Your task to perform on an android device: Search for sushi restaurants on Maps Image 0: 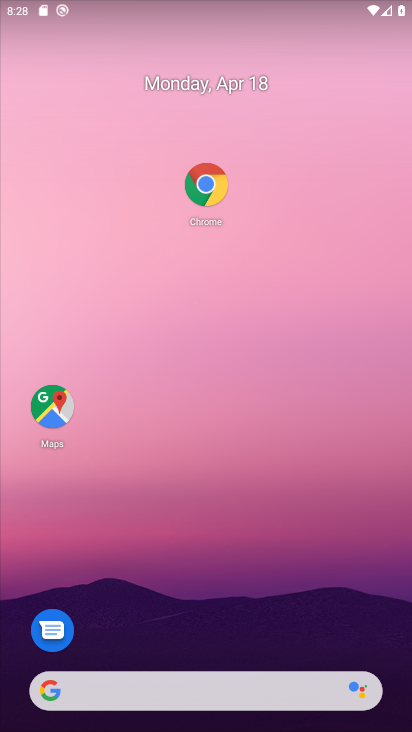
Step 0: click (69, 407)
Your task to perform on an android device: Search for sushi restaurants on Maps Image 1: 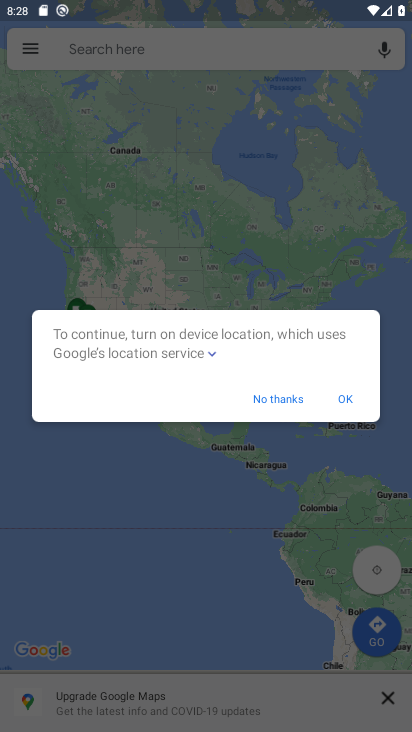
Step 1: click (140, 50)
Your task to perform on an android device: Search for sushi restaurants on Maps Image 2: 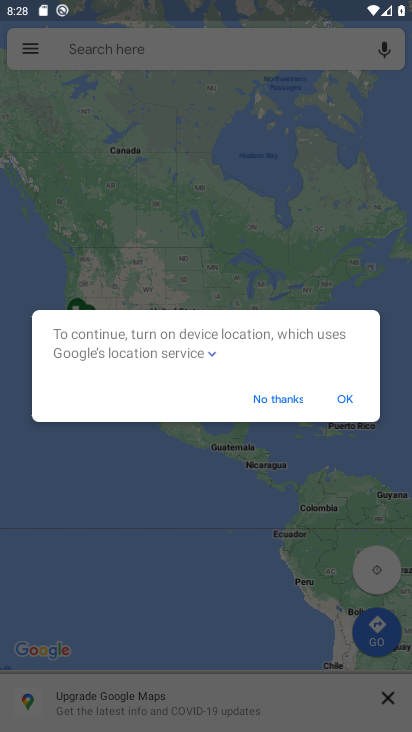
Step 2: click (340, 400)
Your task to perform on an android device: Search for sushi restaurants on Maps Image 3: 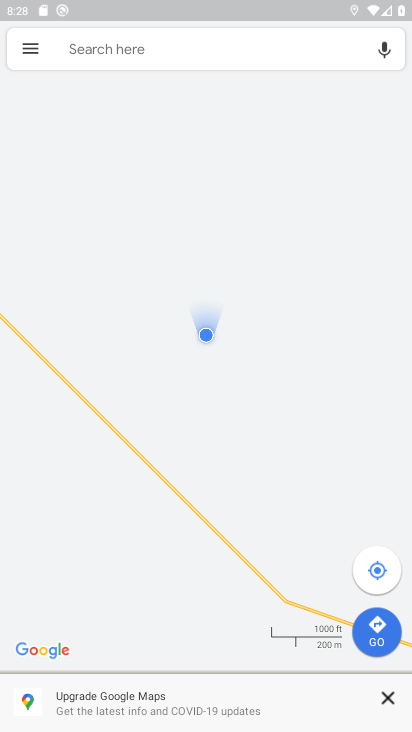
Step 3: click (122, 47)
Your task to perform on an android device: Search for sushi restaurants on Maps Image 4: 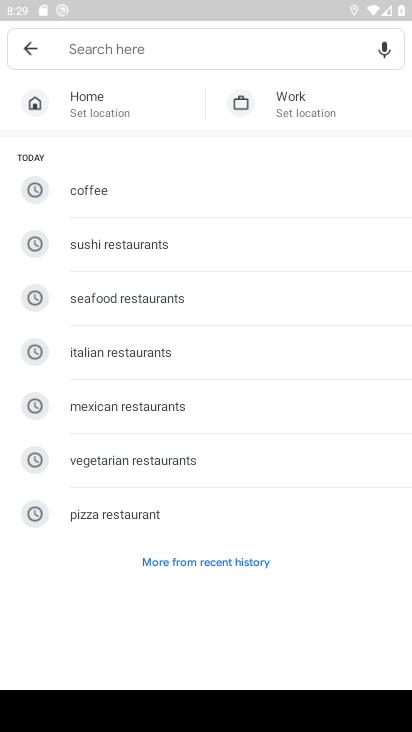
Step 4: type "sushi restaurants"
Your task to perform on an android device: Search for sushi restaurants on Maps Image 5: 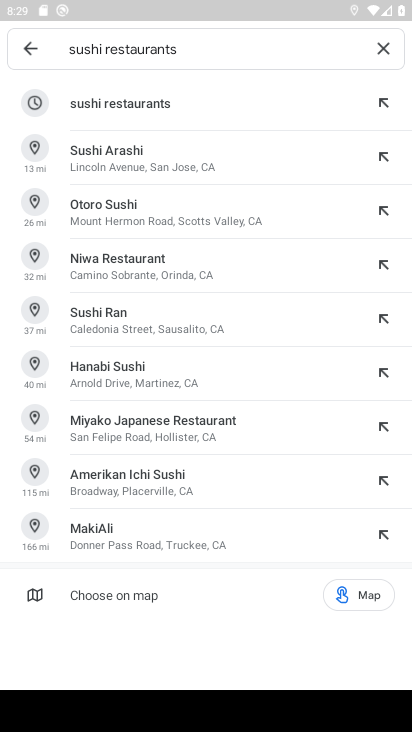
Step 5: click (177, 109)
Your task to perform on an android device: Search for sushi restaurants on Maps Image 6: 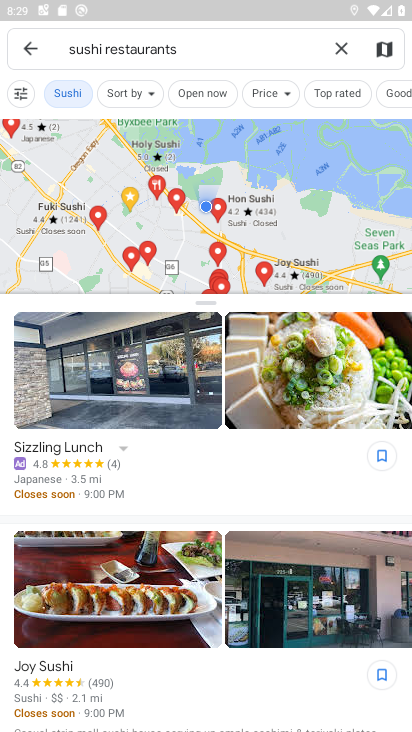
Step 6: task complete